Your task to perform on an android device: open app "PlayWell" (install if not already installed) Image 0: 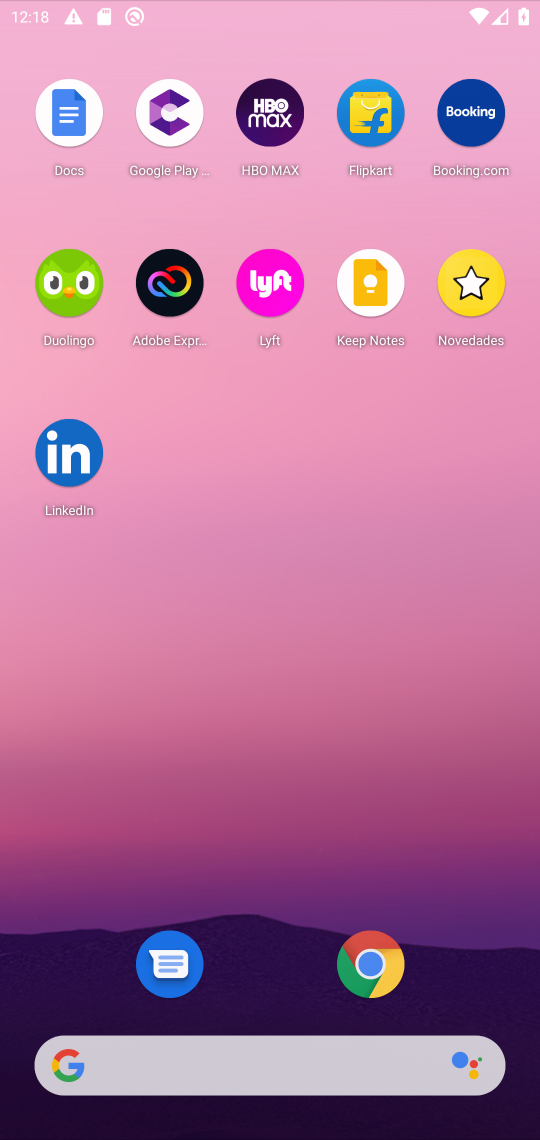
Step 0: press home button
Your task to perform on an android device: open app "PlayWell" (install if not already installed) Image 1: 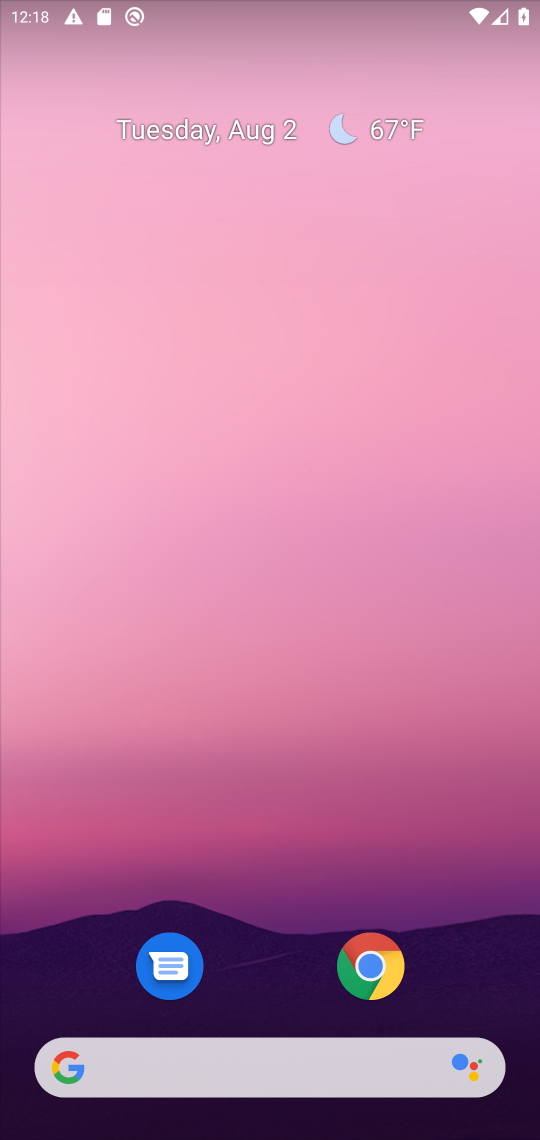
Step 1: drag from (450, 809) to (445, 83)
Your task to perform on an android device: open app "PlayWell" (install if not already installed) Image 2: 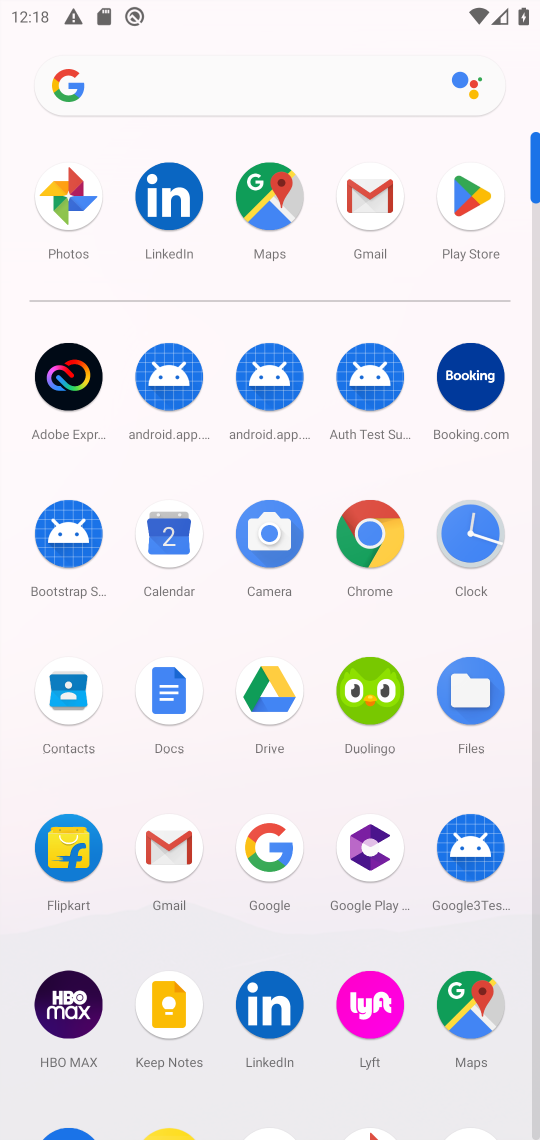
Step 2: click (476, 200)
Your task to perform on an android device: open app "PlayWell" (install if not already installed) Image 3: 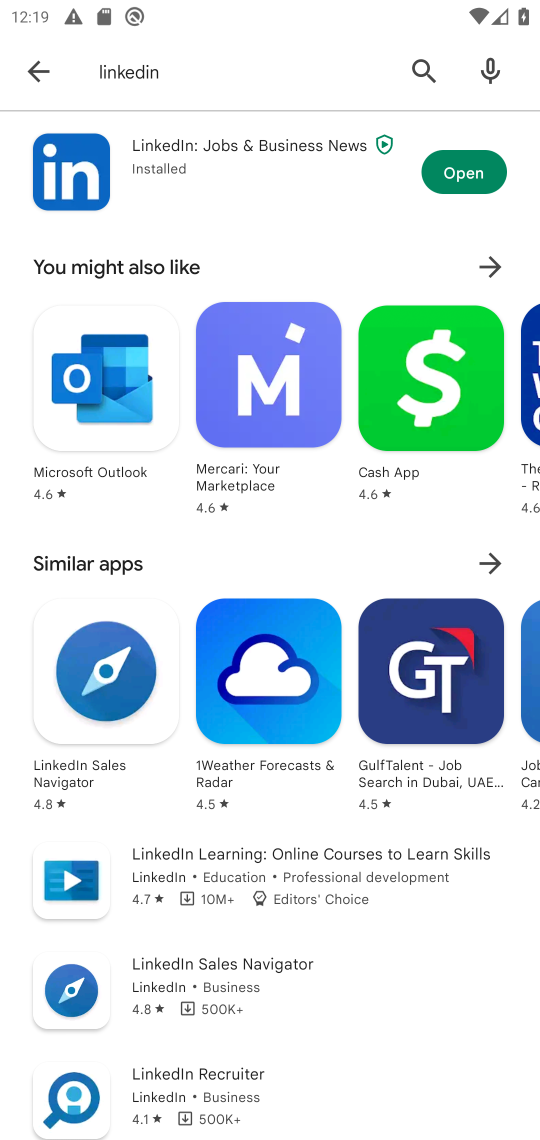
Step 3: click (431, 72)
Your task to perform on an android device: open app "PlayWell" (install if not already installed) Image 4: 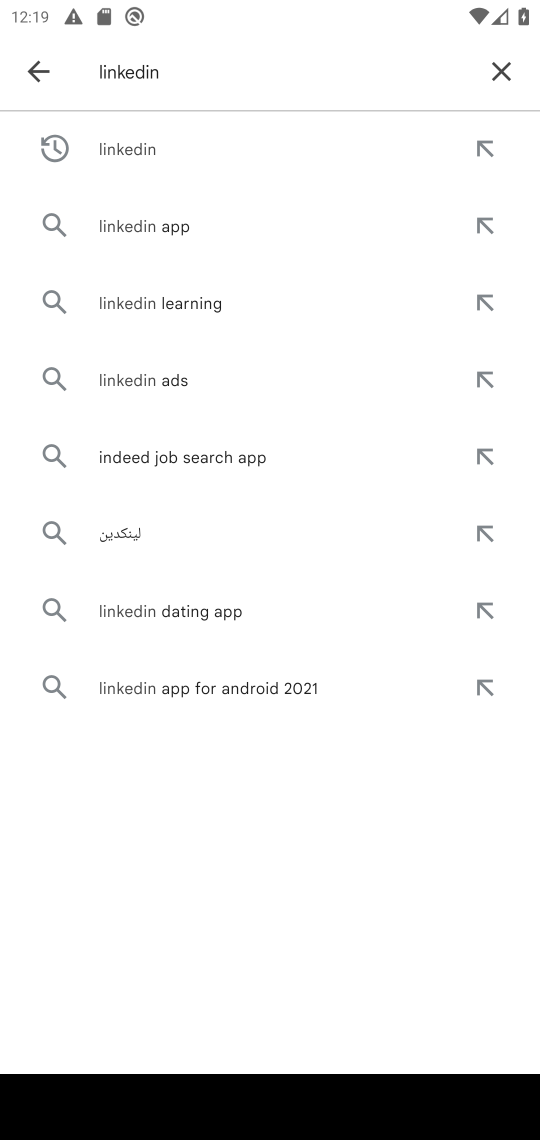
Step 4: click (498, 75)
Your task to perform on an android device: open app "PlayWell" (install if not already installed) Image 5: 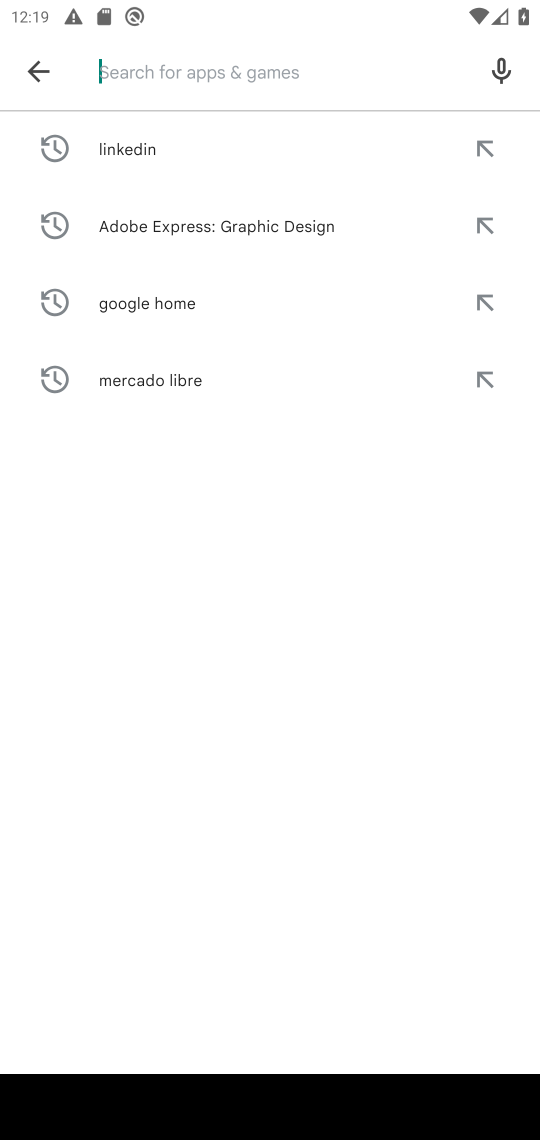
Step 5: type "play well"
Your task to perform on an android device: open app "PlayWell" (install if not already installed) Image 6: 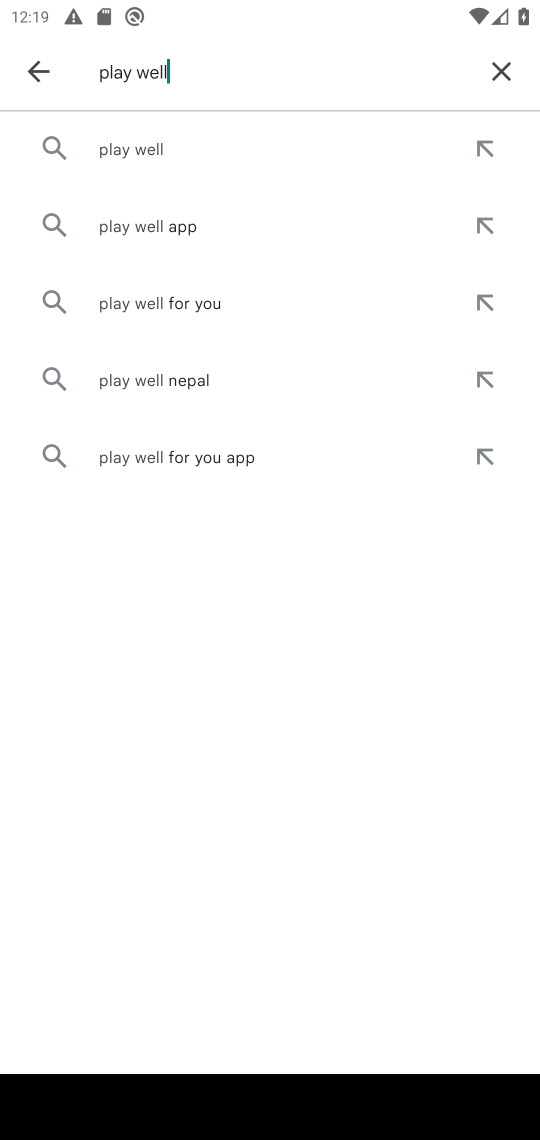
Step 6: click (219, 142)
Your task to perform on an android device: open app "PlayWell" (install if not already installed) Image 7: 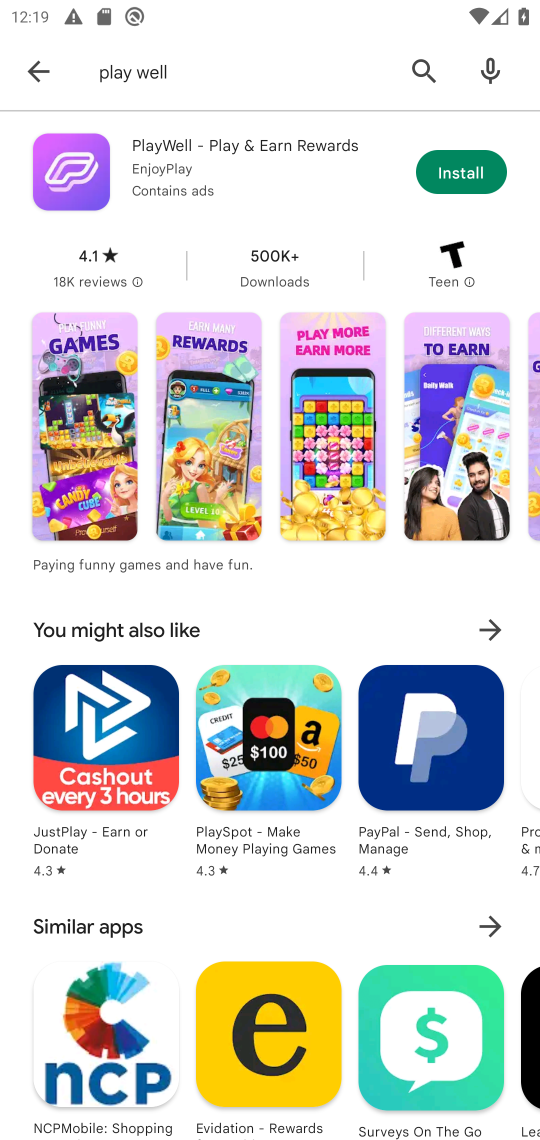
Step 7: click (446, 157)
Your task to perform on an android device: open app "PlayWell" (install if not already installed) Image 8: 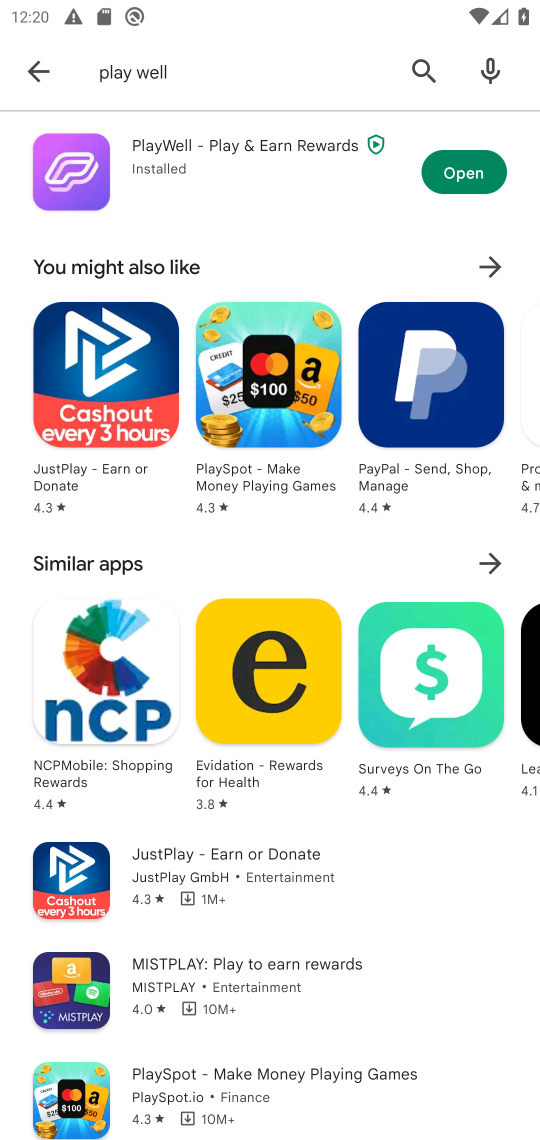
Step 8: click (460, 167)
Your task to perform on an android device: open app "PlayWell" (install if not already installed) Image 9: 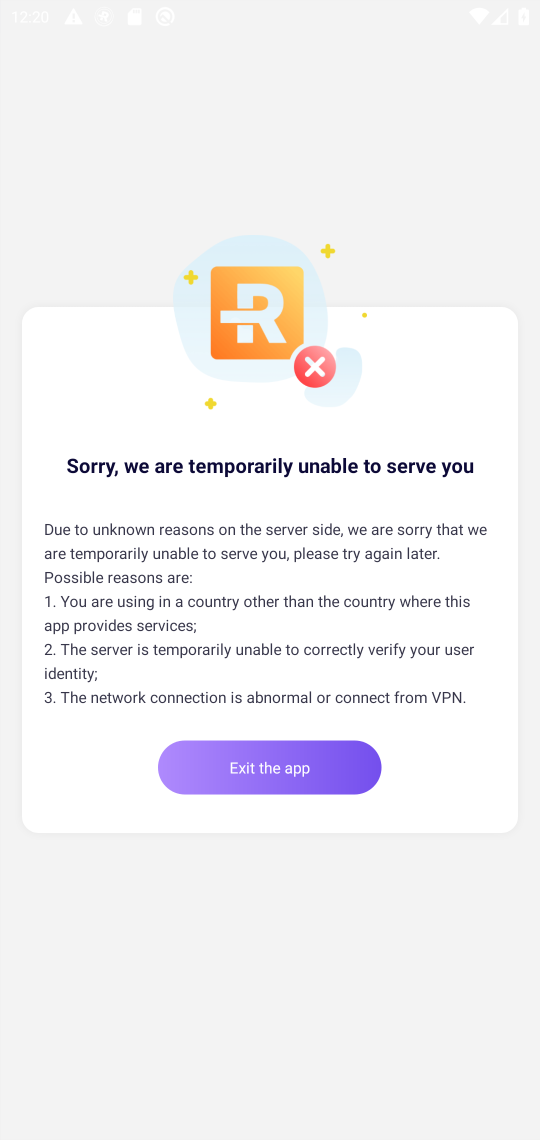
Step 9: task complete